Your task to perform on an android device: see tabs open on other devices in the chrome app Image 0: 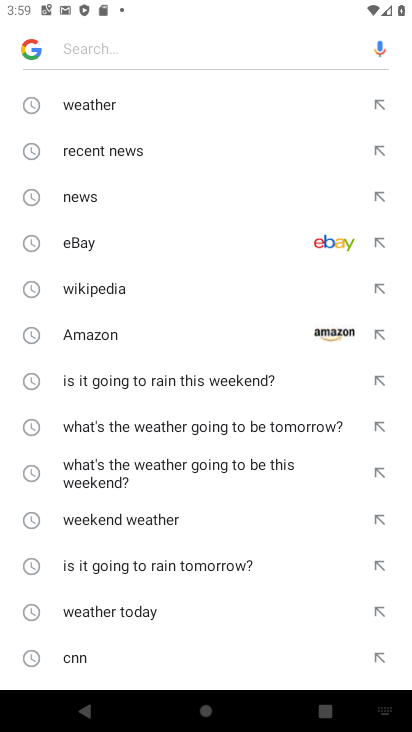
Step 0: press home button
Your task to perform on an android device: see tabs open on other devices in the chrome app Image 1: 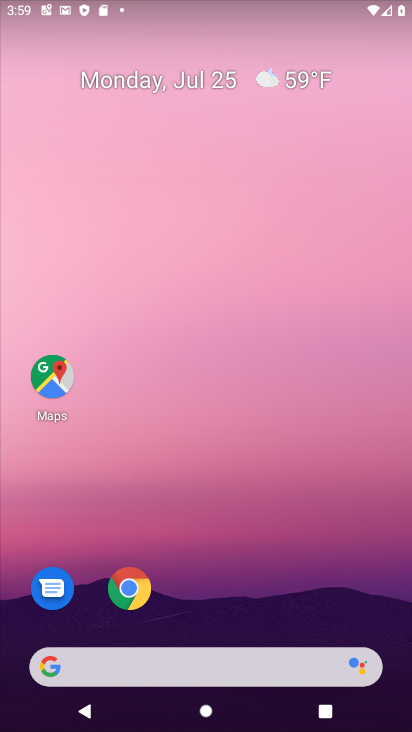
Step 1: drag from (292, 581) to (209, 57)
Your task to perform on an android device: see tabs open on other devices in the chrome app Image 2: 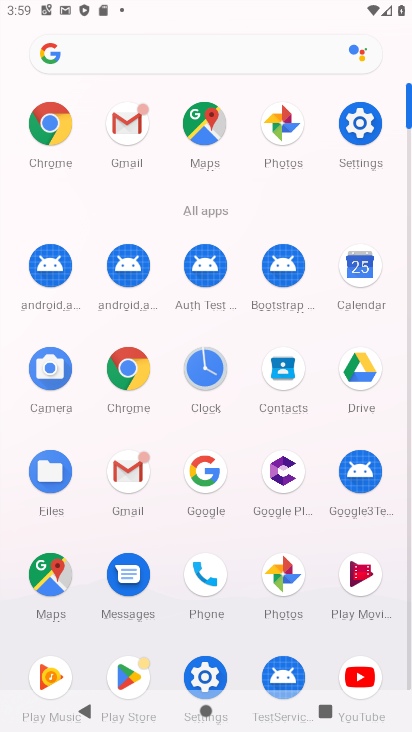
Step 2: click (125, 373)
Your task to perform on an android device: see tabs open on other devices in the chrome app Image 3: 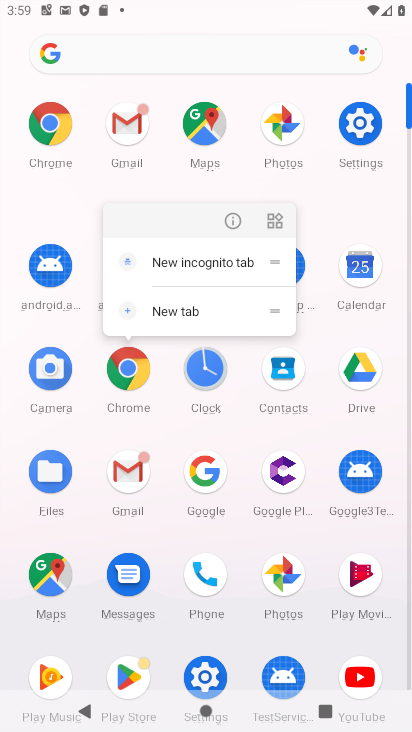
Step 3: click (120, 368)
Your task to perform on an android device: see tabs open on other devices in the chrome app Image 4: 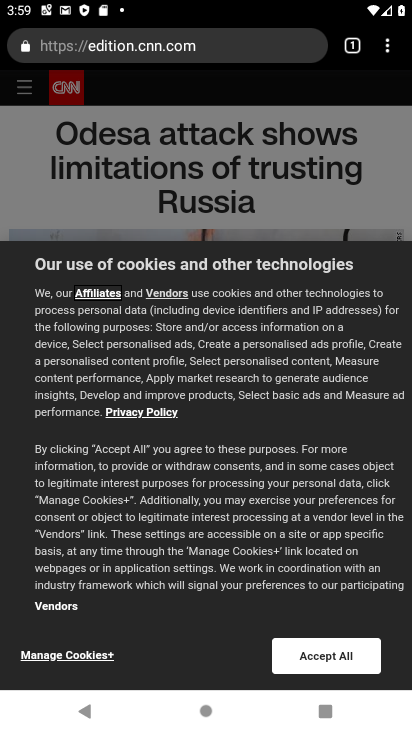
Step 4: task complete